Your task to perform on an android device: See recent photos Image 0: 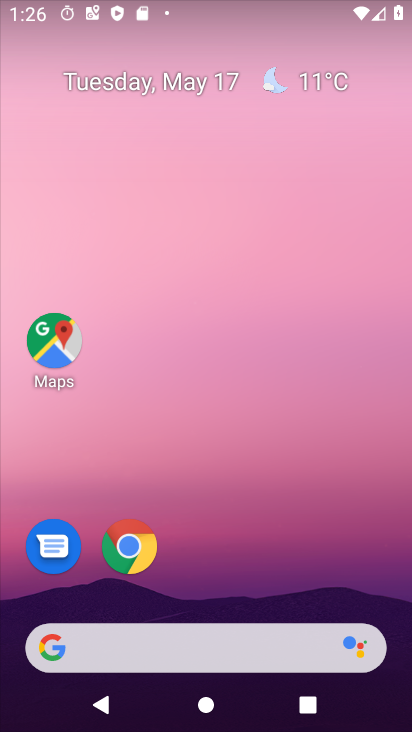
Step 0: drag from (149, 645) to (302, 86)
Your task to perform on an android device: See recent photos Image 1: 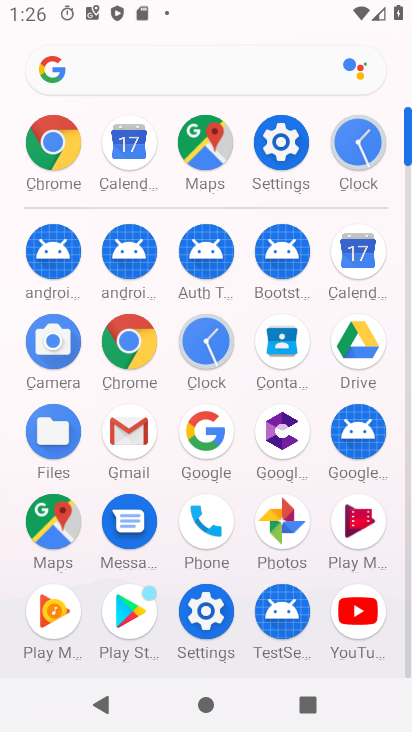
Step 1: click (285, 521)
Your task to perform on an android device: See recent photos Image 2: 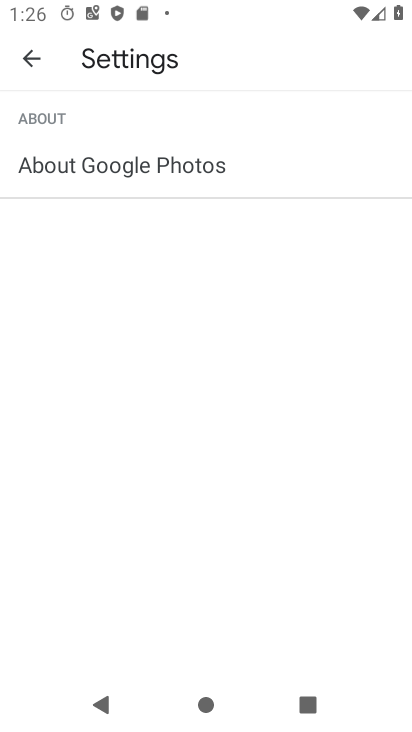
Step 2: click (33, 60)
Your task to perform on an android device: See recent photos Image 3: 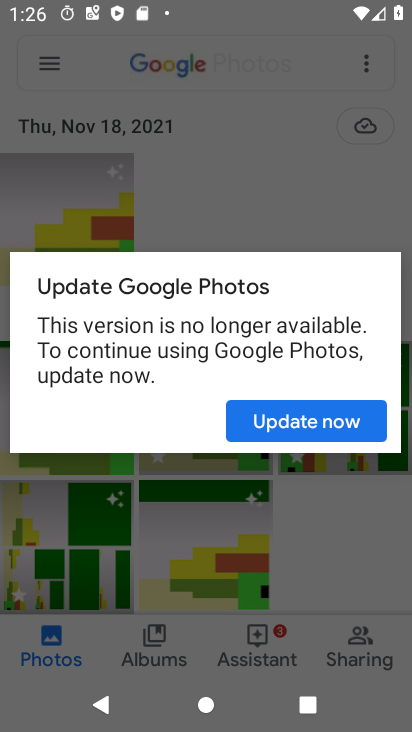
Step 3: click (341, 412)
Your task to perform on an android device: See recent photos Image 4: 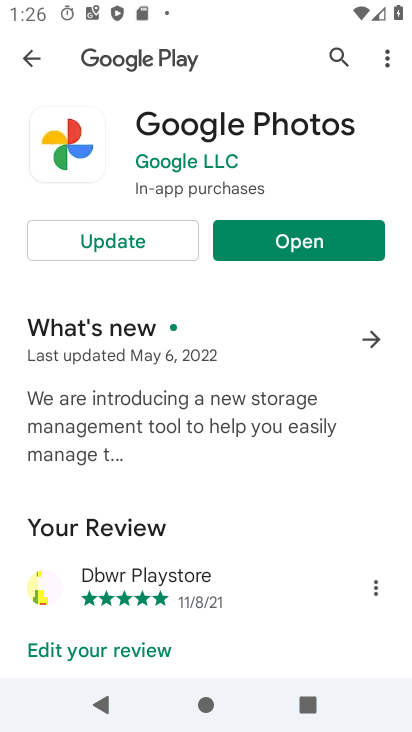
Step 4: click (314, 248)
Your task to perform on an android device: See recent photos Image 5: 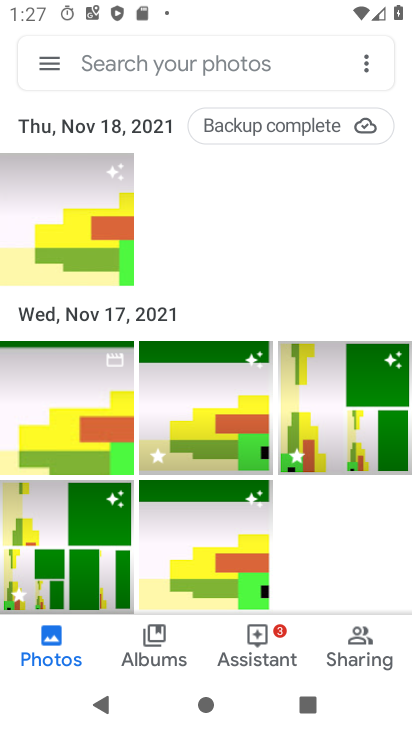
Step 5: click (174, 653)
Your task to perform on an android device: See recent photos Image 6: 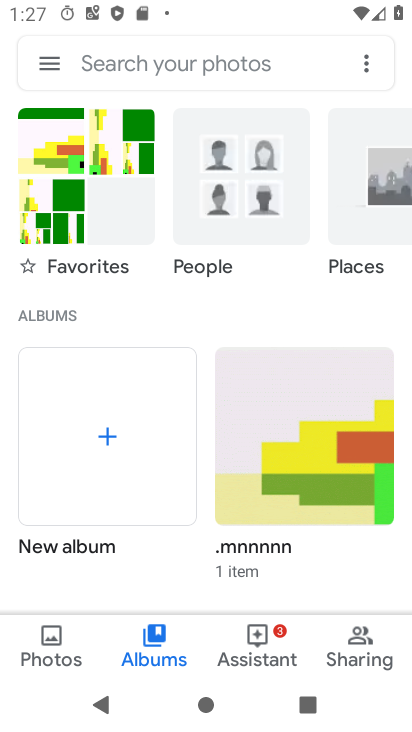
Step 6: task complete